Your task to perform on an android device: toggle show notifications on the lock screen Image 0: 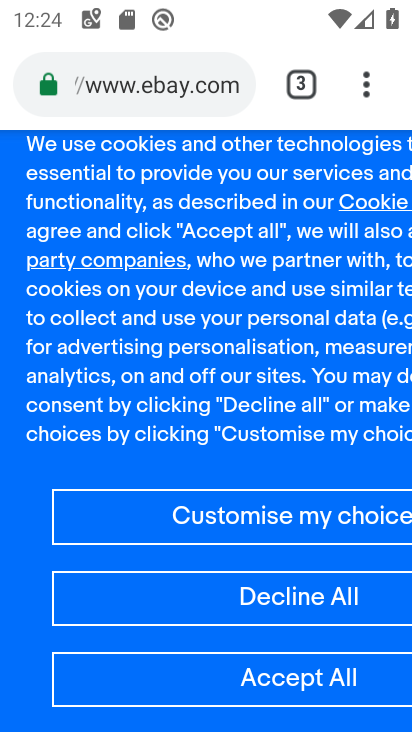
Step 0: press home button
Your task to perform on an android device: toggle show notifications on the lock screen Image 1: 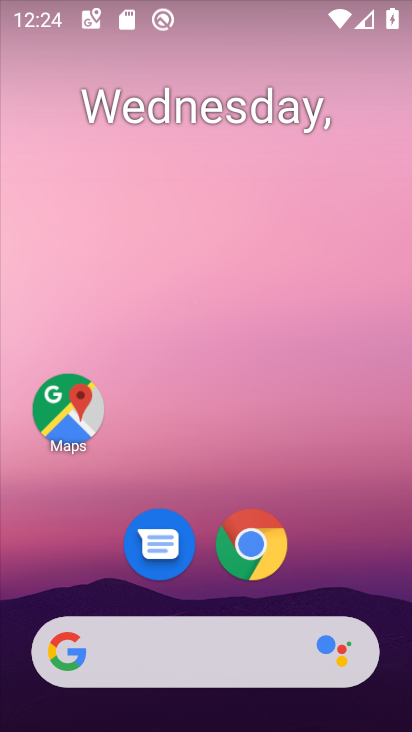
Step 1: drag from (271, 490) to (294, 228)
Your task to perform on an android device: toggle show notifications on the lock screen Image 2: 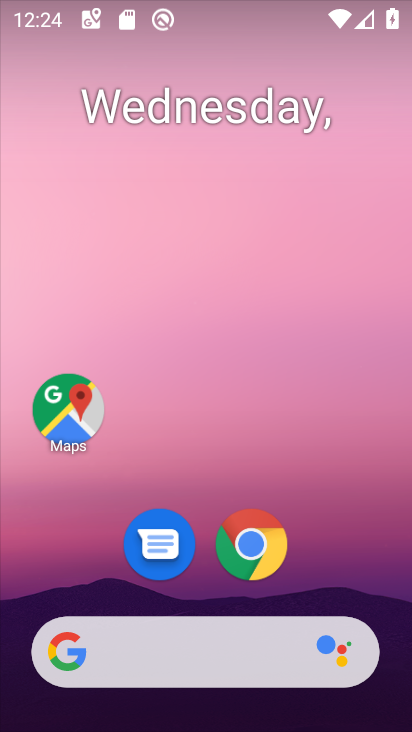
Step 2: drag from (243, 421) to (301, 134)
Your task to perform on an android device: toggle show notifications on the lock screen Image 3: 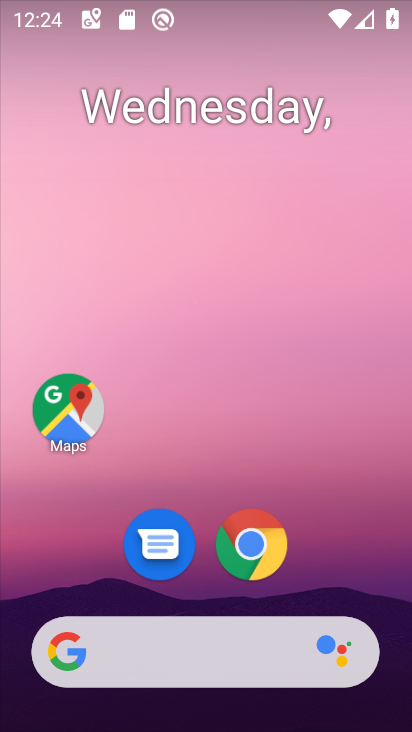
Step 3: drag from (212, 458) to (250, 110)
Your task to perform on an android device: toggle show notifications on the lock screen Image 4: 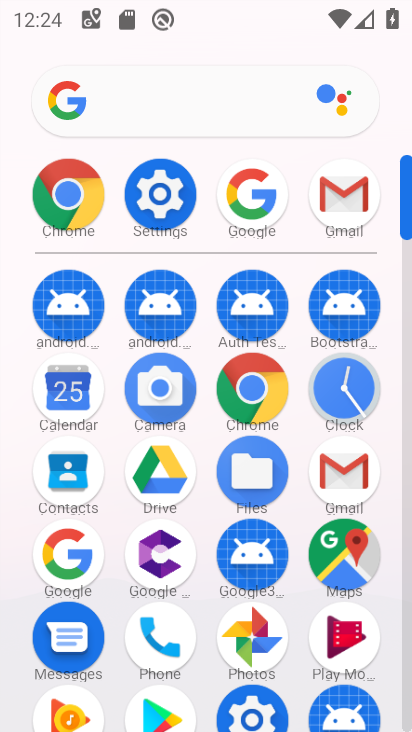
Step 4: click (336, 410)
Your task to perform on an android device: toggle show notifications on the lock screen Image 5: 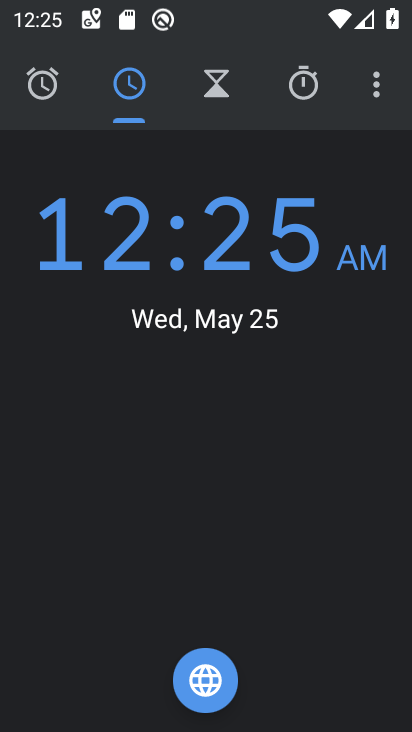
Step 5: press home button
Your task to perform on an android device: toggle show notifications on the lock screen Image 6: 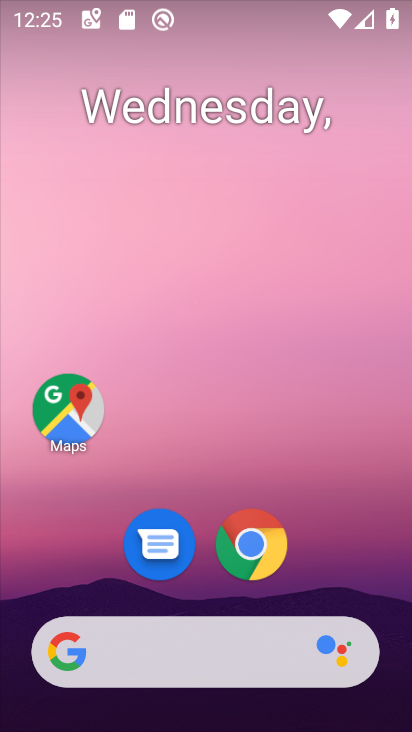
Step 6: drag from (212, 602) to (245, 164)
Your task to perform on an android device: toggle show notifications on the lock screen Image 7: 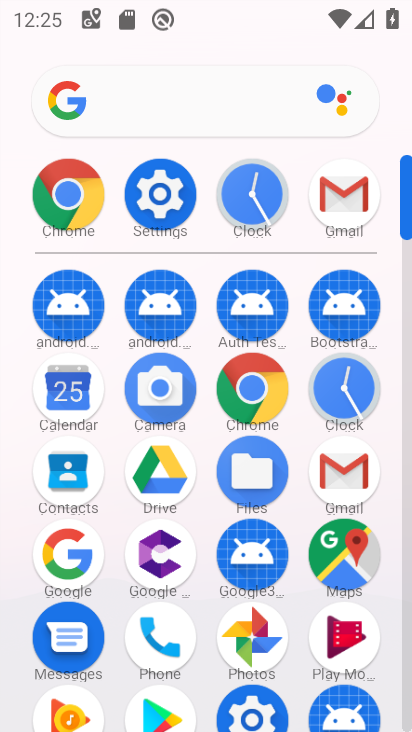
Step 7: click (258, 701)
Your task to perform on an android device: toggle show notifications on the lock screen Image 8: 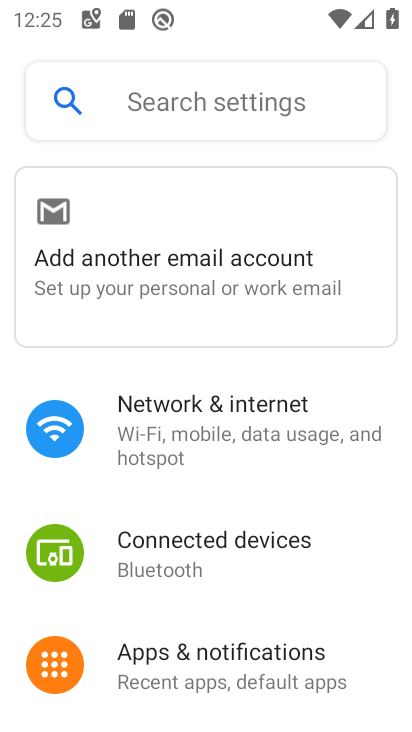
Step 8: drag from (214, 592) to (216, 333)
Your task to perform on an android device: toggle show notifications on the lock screen Image 9: 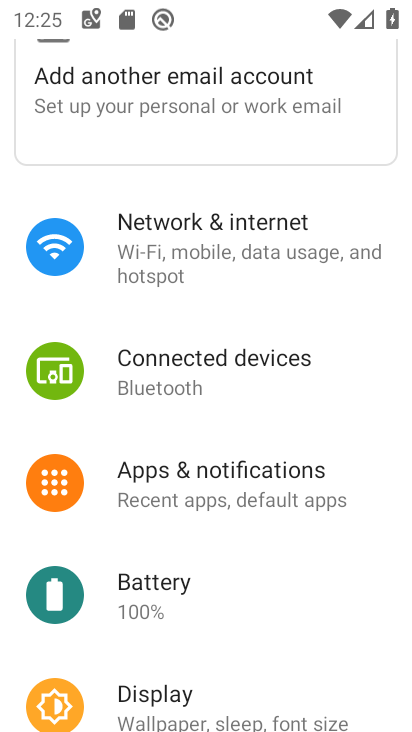
Step 9: drag from (164, 597) to (148, 453)
Your task to perform on an android device: toggle show notifications on the lock screen Image 10: 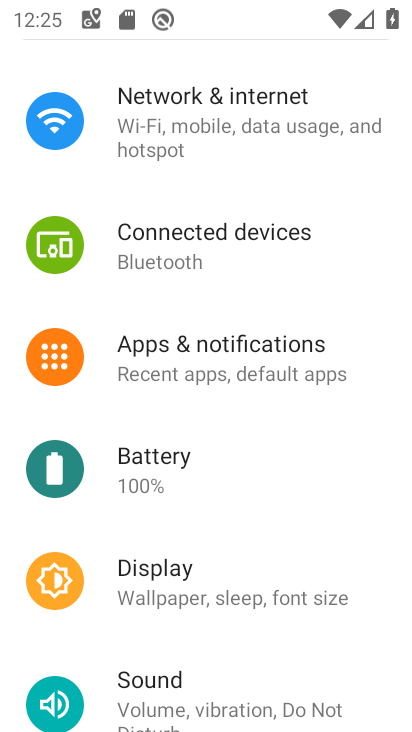
Step 10: click (146, 398)
Your task to perform on an android device: toggle show notifications on the lock screen Image 11: 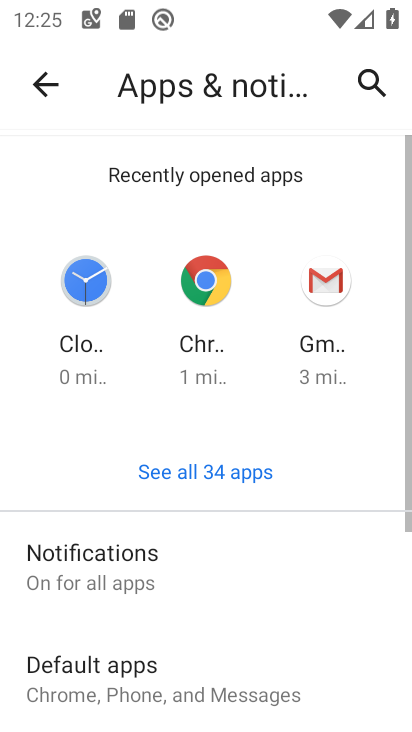
Step 11: drag from (156, 601) to (156, 392)
Your task to perform on an android device: toggle show notifications on the lock screen Image 12: 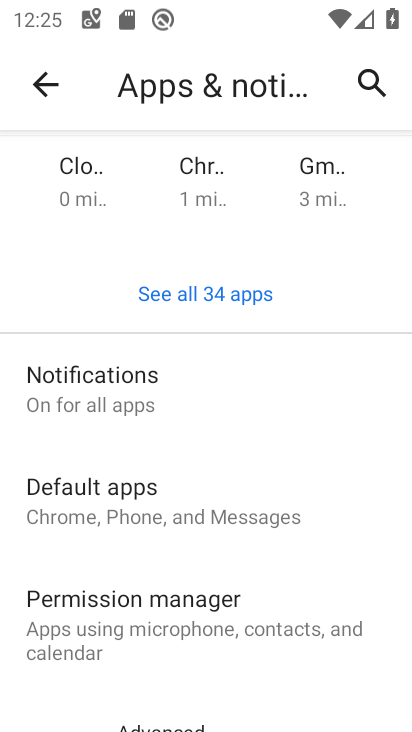
Step 12: click (126, 394)
Your task to perform on an android device: toggle show notifications on the lock screen Image 13: 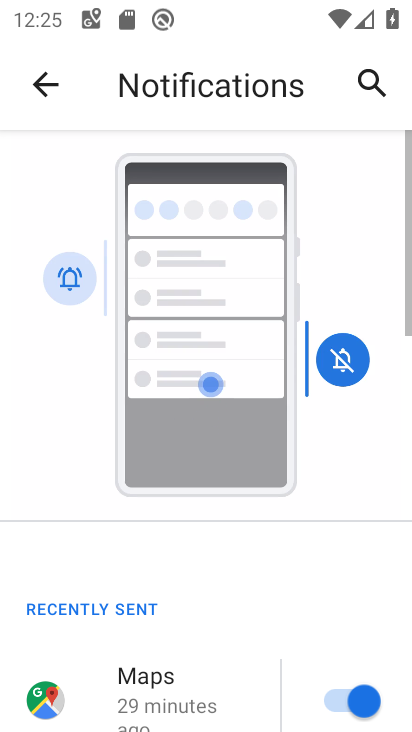
Step 13: drag from (120, 548) to (126, 177)
Your task to perform on an android device: toggle show notifications on the lock screen Image 14: 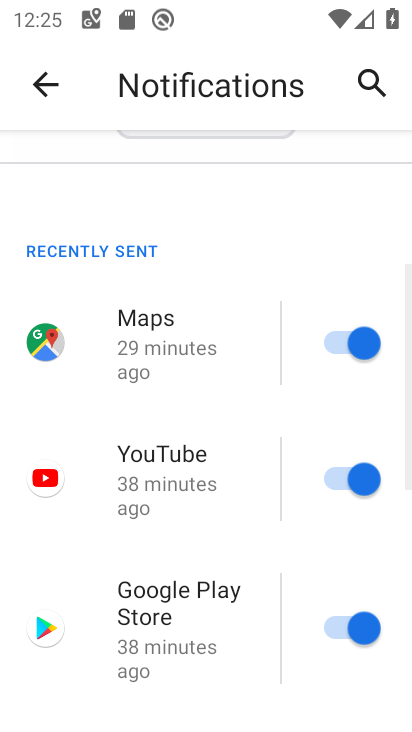
Step 14: drag from (156, 563) to (125, 128)
Your task to perform on an android device: toggle show notifications on the lock screen Image 15: 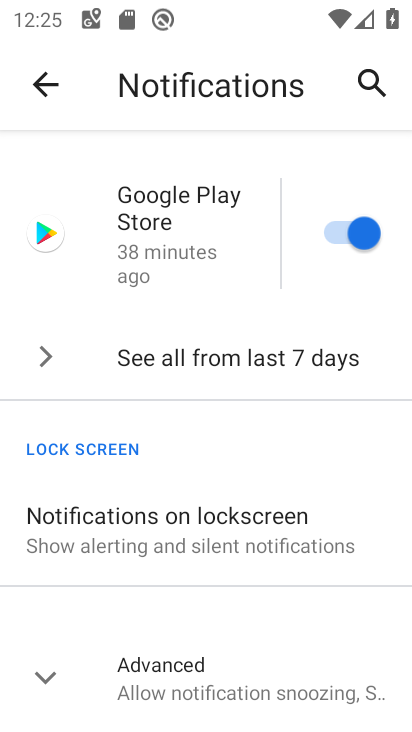
Step 15: click (130, 526)
Your task to perform on an android device: toggle show notifications on the lock screen Image 16: 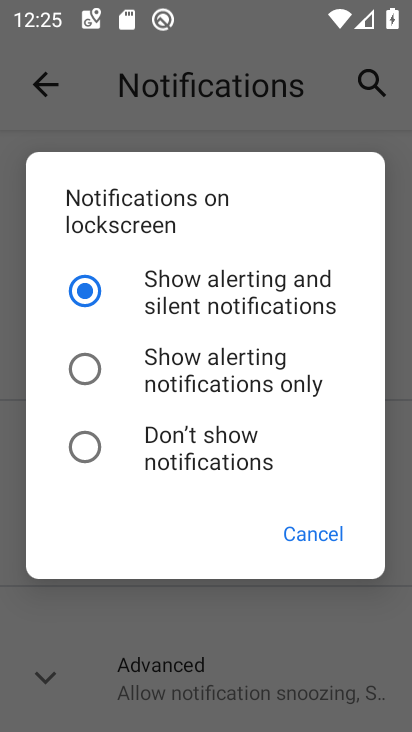
Step 16: click (130, 470)
Your task to perform on an android device: toggle show notifications on the lock screen Image 17: 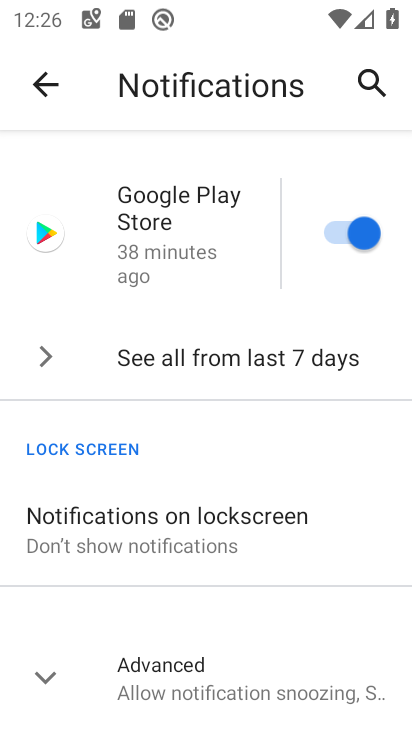
Step 17: task complete